Your task to perform on an android device: Search for seafood restaurants on Google Maps Image 0: 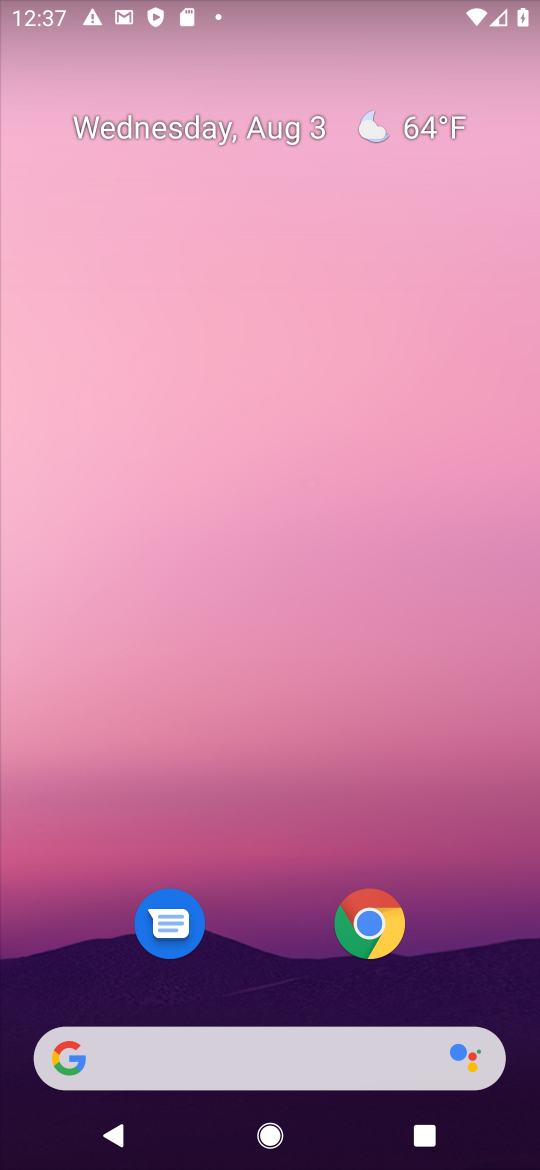
Step 0: drag from (242, 983) to (337, 647)
Your task to perform on an android device: Search for seafood restaurants on Google Maps Image 1: 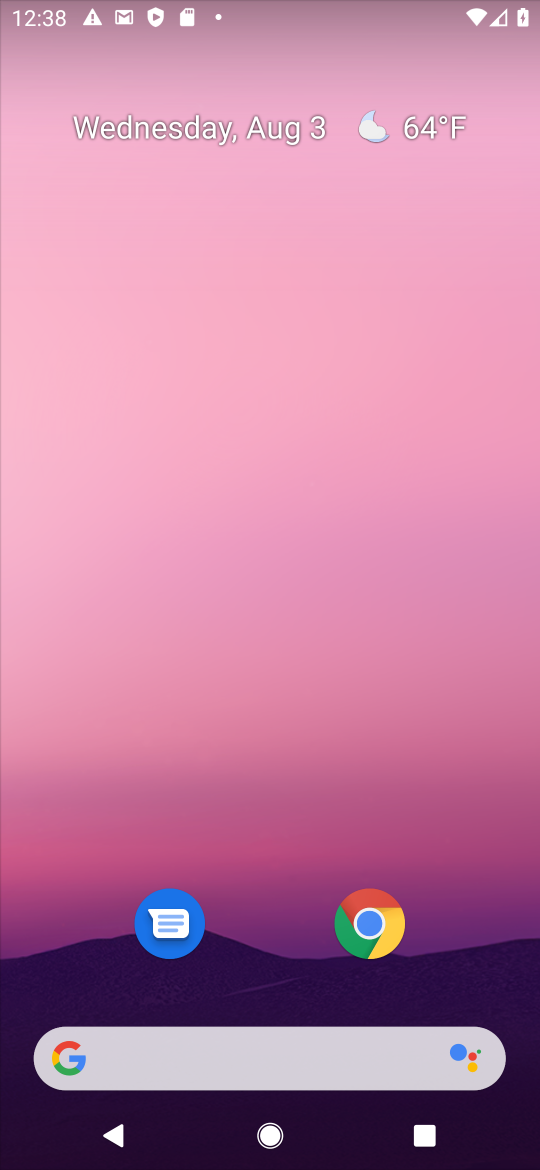
Step 1: drag from (253, 946) to (297, 85)
Your task to perform on an android device: Search for seafood restaurants on Google Maps Image 2: 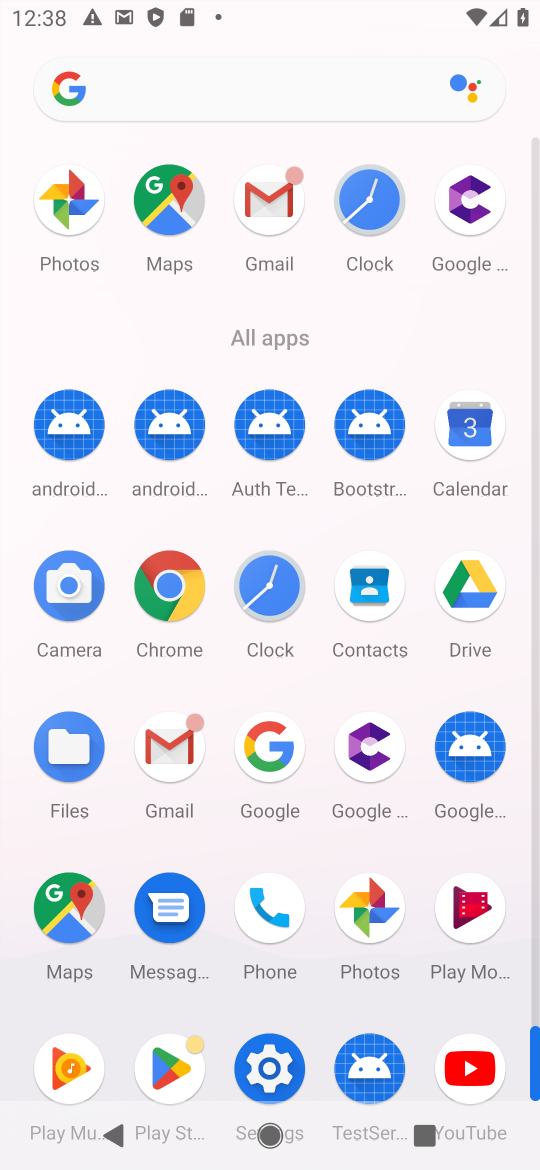
Step 2: click (59, 897)
Your task to perform on an android device: Search for seafood restaurants on Google Maps Image 3: 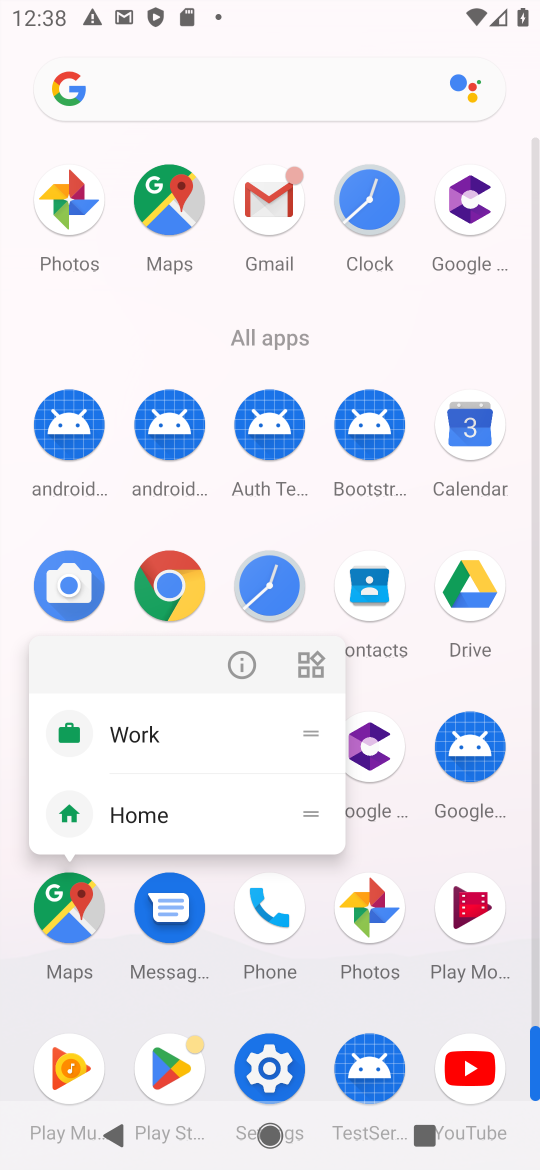
Step 3: click (248, 649)
Your task to perform on an android device: Search for seafood restaurants on Google Maps Image 4: 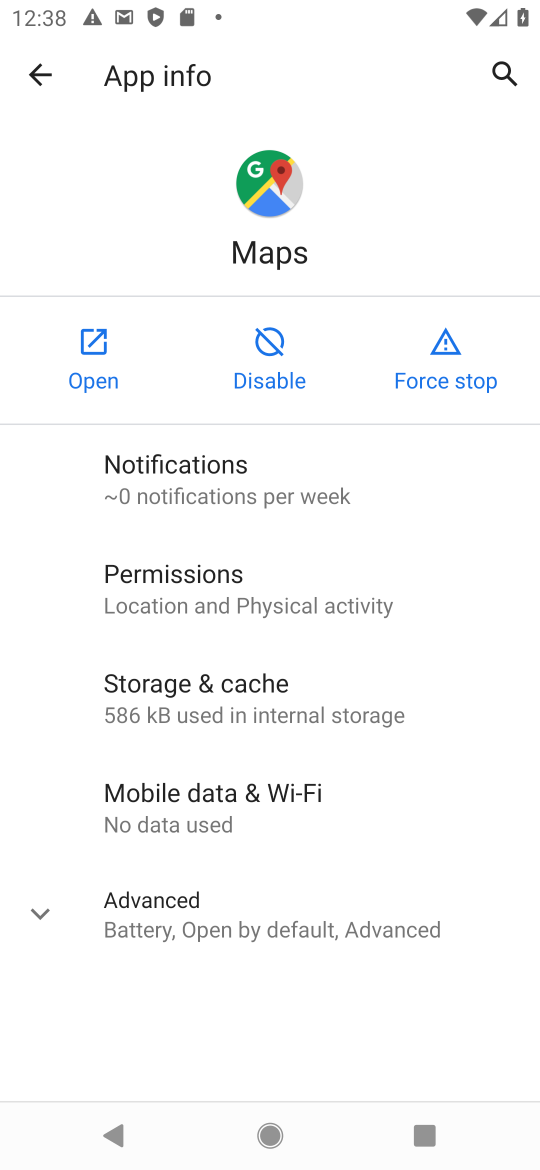
Step 4: click (96, 331)
Your task to perform on an android device: Search for seafood restaurants on Google Maps Image 5: 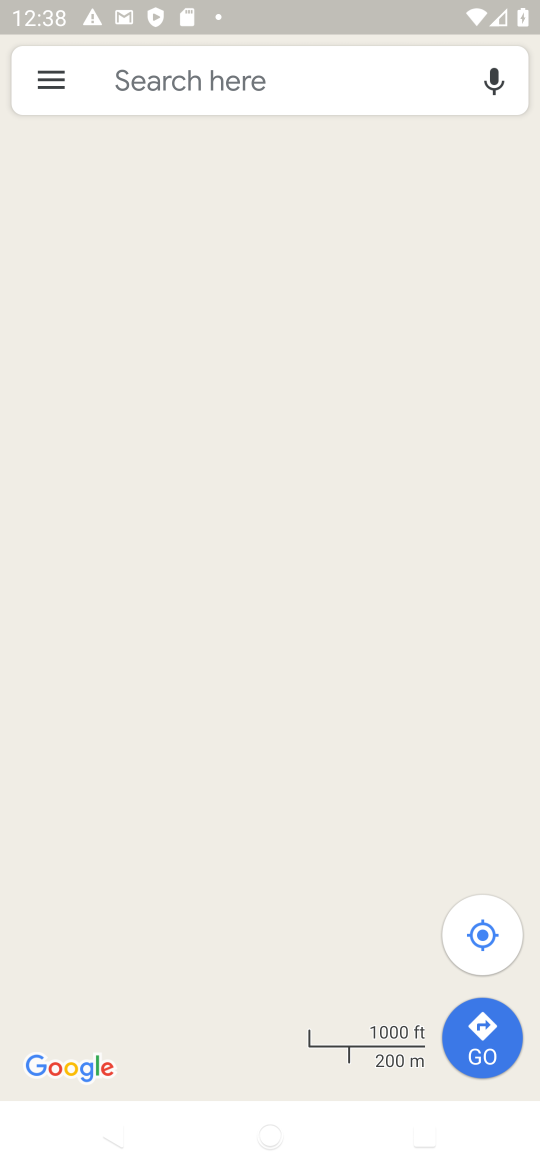
Step 5: drag from (319, 927) to (361, 100)
Your task to perform on an android device: Search for seafood restaurants on Google Maps Image 6: 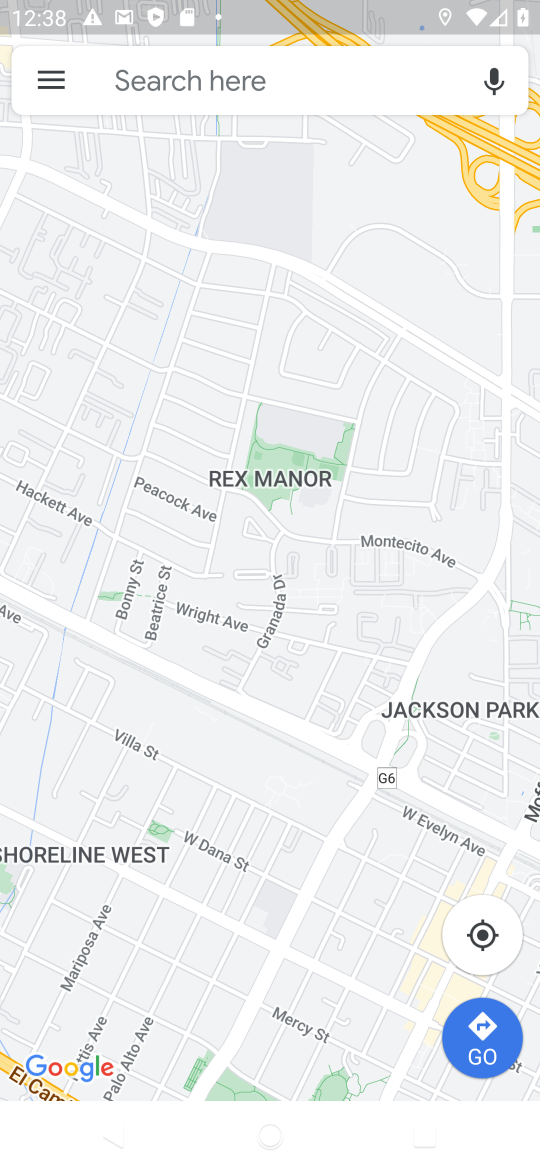
Step 6: drag from (195, 912) to (219, 422)
Your task to perform on an android device: Search for seafood restaurants on Google Maps Image 7: 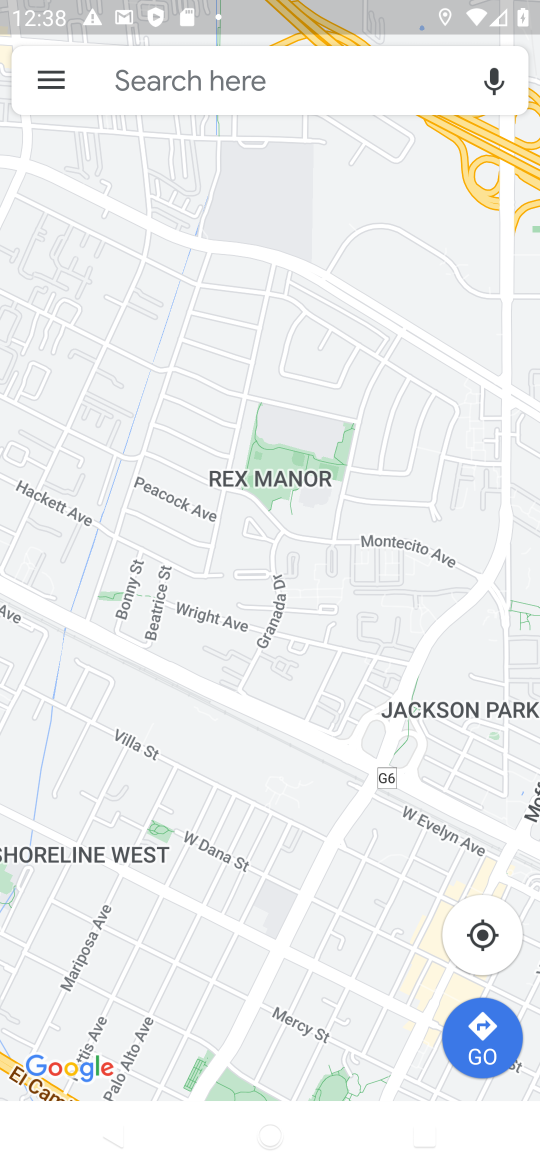
Step 7: drag from (211, 367) to (228, 821)
Your task to perform on an android device: Search for seafood restaurants on Google Maps Image 8: 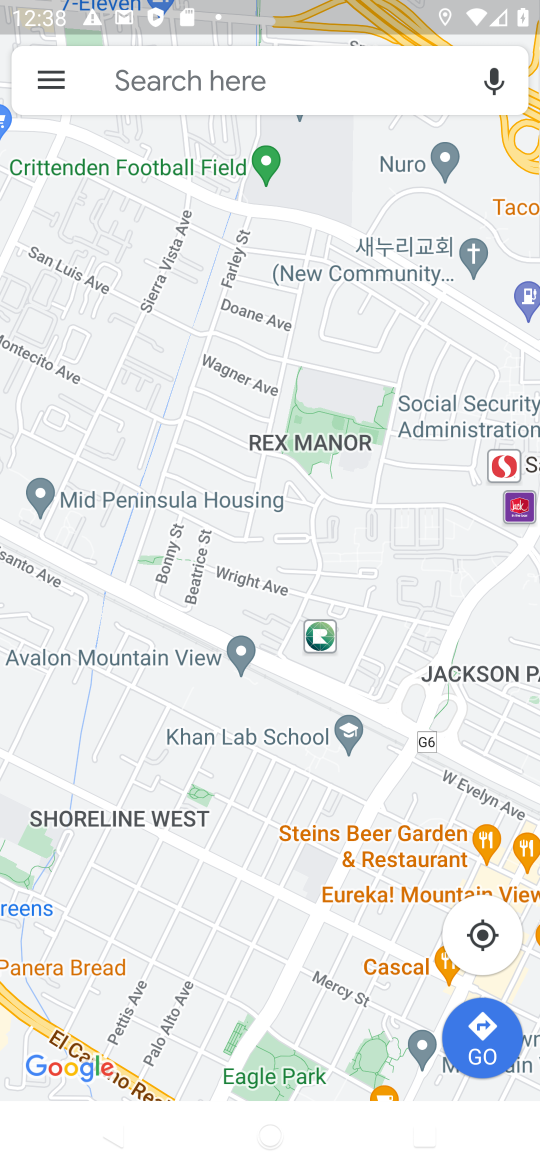
Step 8: drag from (295, 399) to (360, 1163)
Your task to perform on an android device: Search for seafood restaurants on Google Maps Image 9: 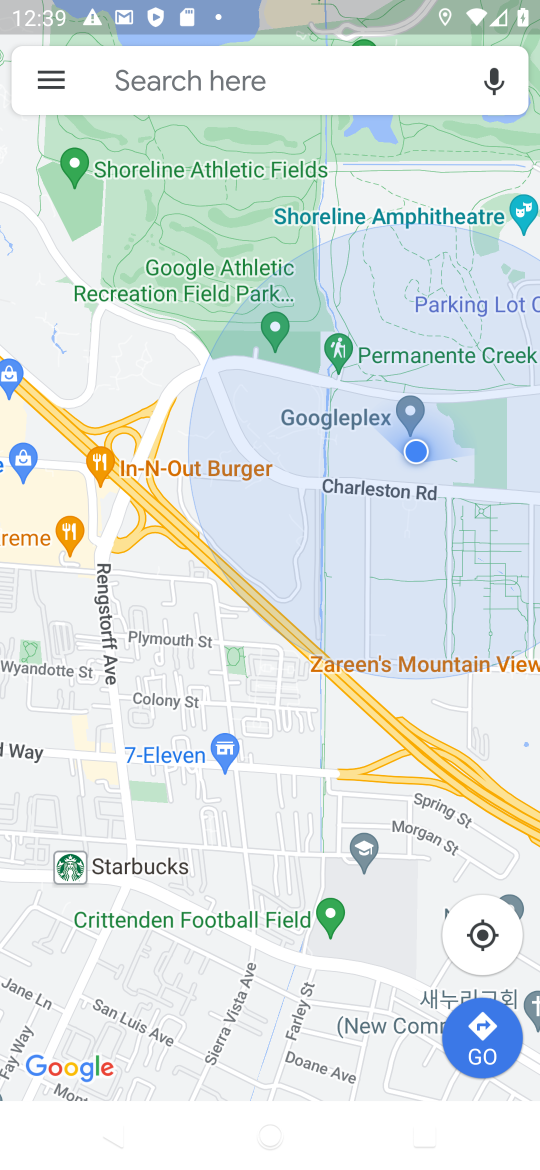
Step 9: drag from (269, 440) to (404, 1041)
Your task to perform on an android device: Search for seafood restaurants on Google Maps Image 10: 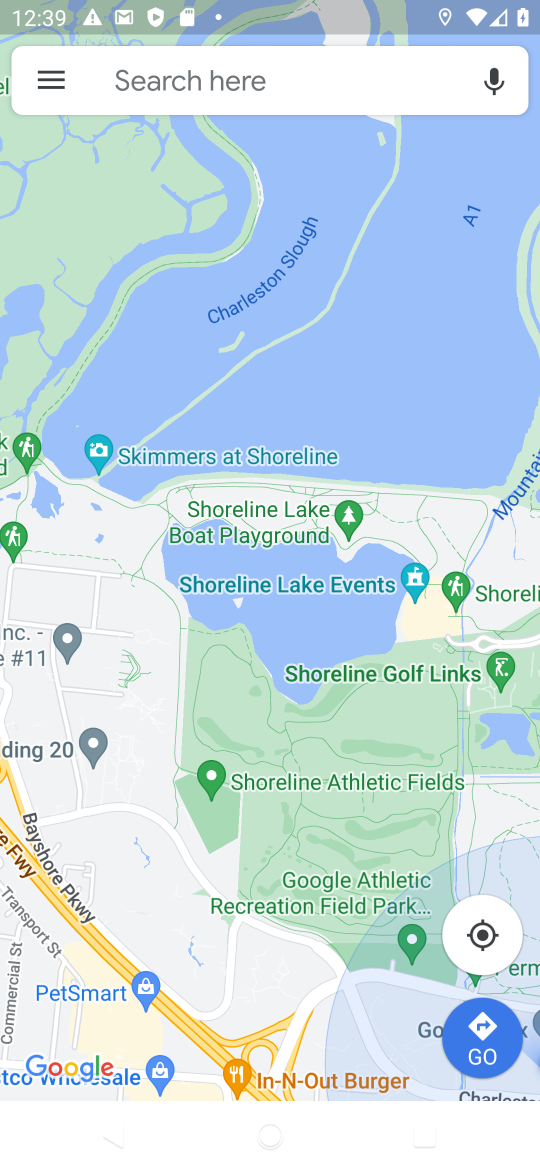
Step 10: click (136, 79)
Your task to perform on an android device: Search for seafood restaurants on Google Maps Image 11: 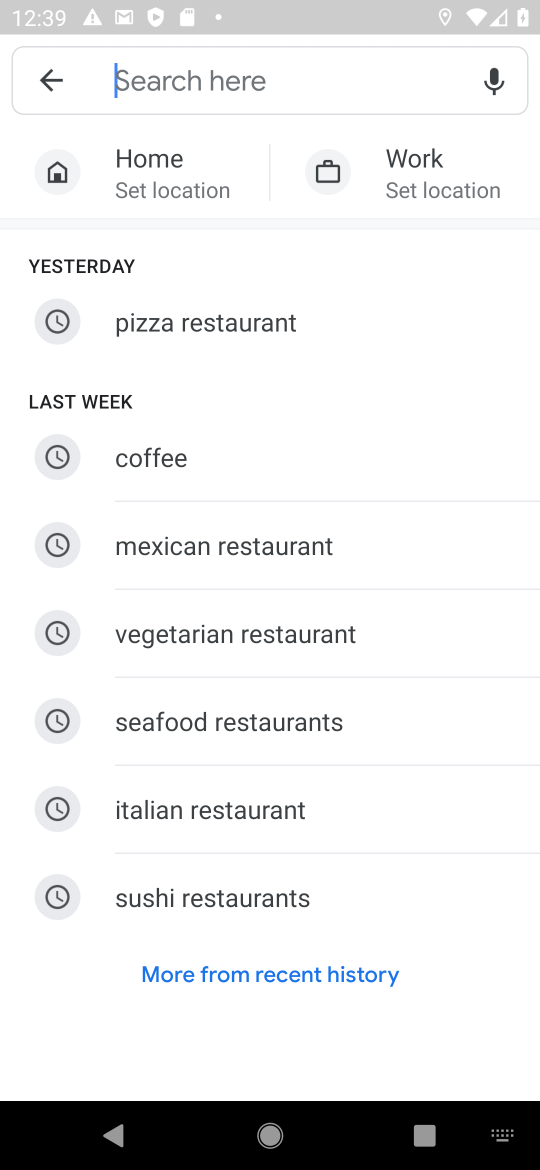
Step 11: drag from (319, 1169) to (445, 740)
Your task to perform on an android device: Search for seafood restaurants on Google Maps Image 12: 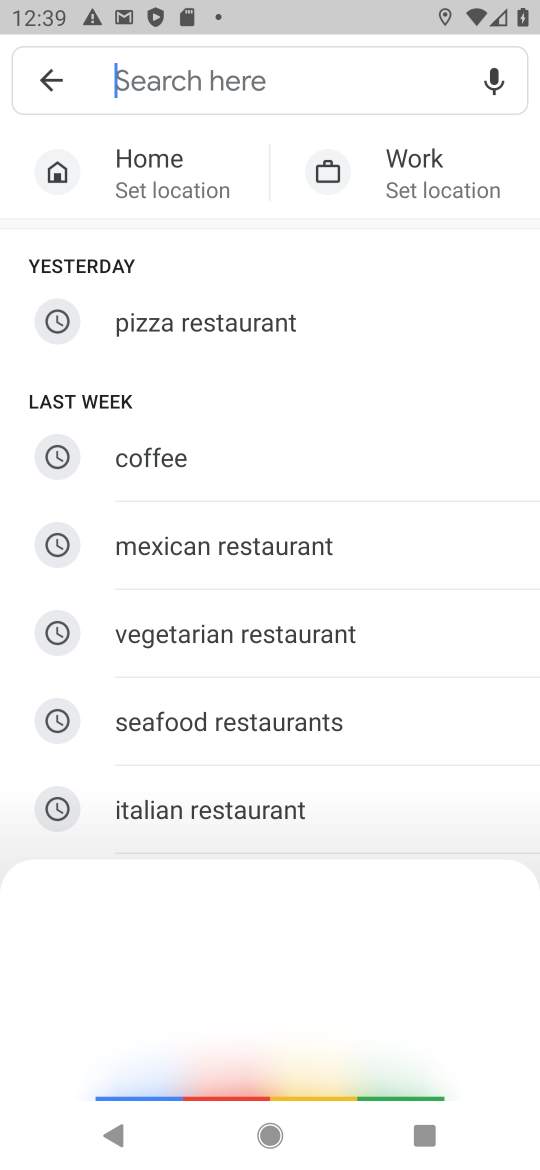
Step 12: click (174, 88)
Your task to perform on an android device: Search for seafood restaurants on Google Maps Image 13: 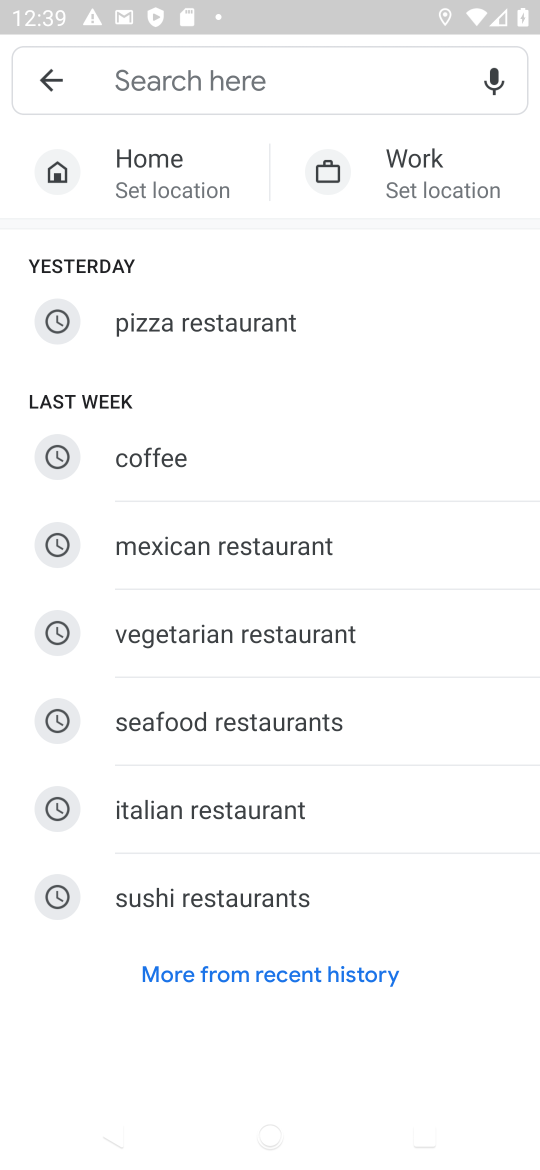
Step 13: type "seafood restaurants"
Your task to perform on an android device: Search for seafood restaurants on Google Maps Image 14: 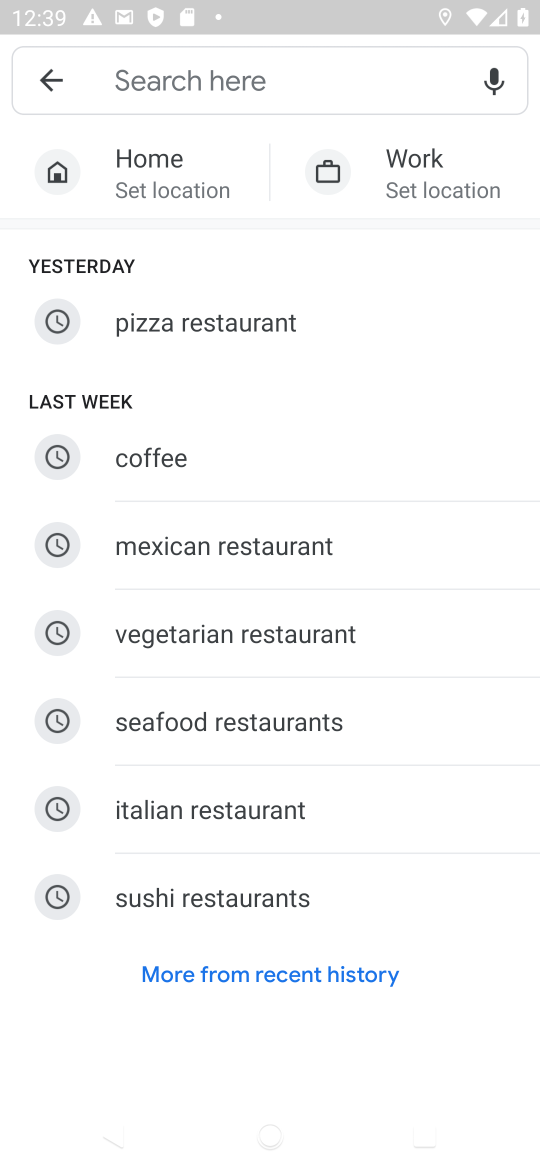
Step 14: click (231, 712)
Your task to perform on an android device: Search for seafood restaurants on Google Maps Image 15: 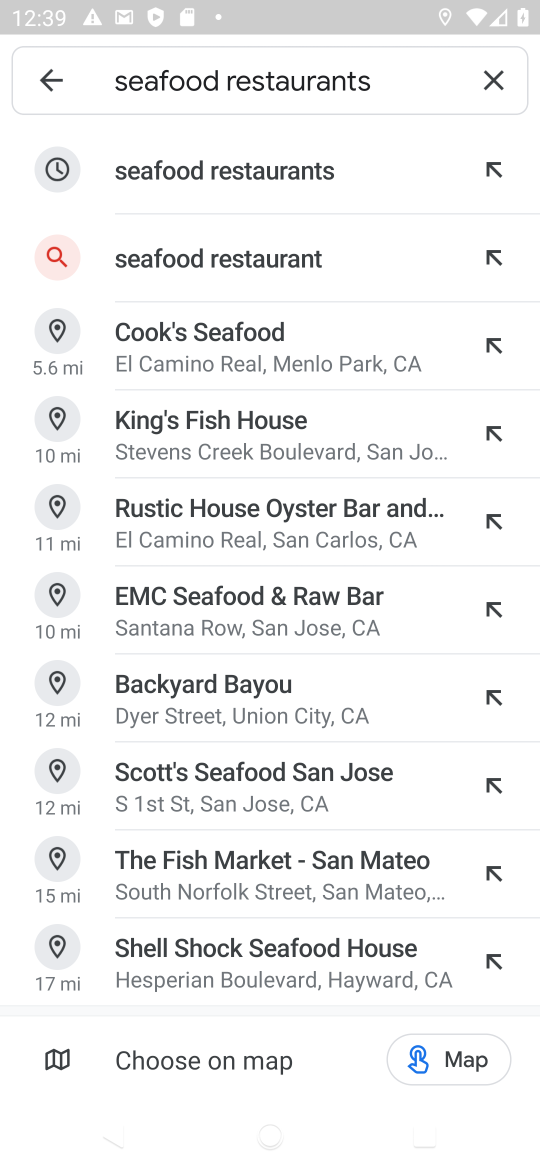
Step 15: click (208, 175)
Your task to perform on an android device: Search for seafood restaurants on Google Maps Image 16: 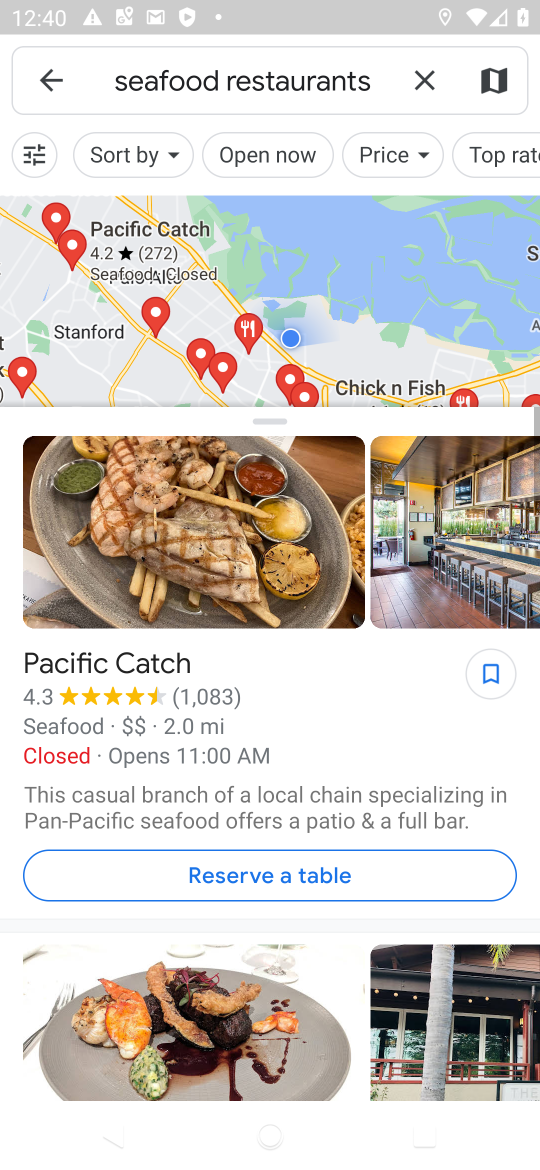
Step 16: click (332, 78)
Your task to perform on an android device: Search for seafood restaurants on Google Maps Image 17: 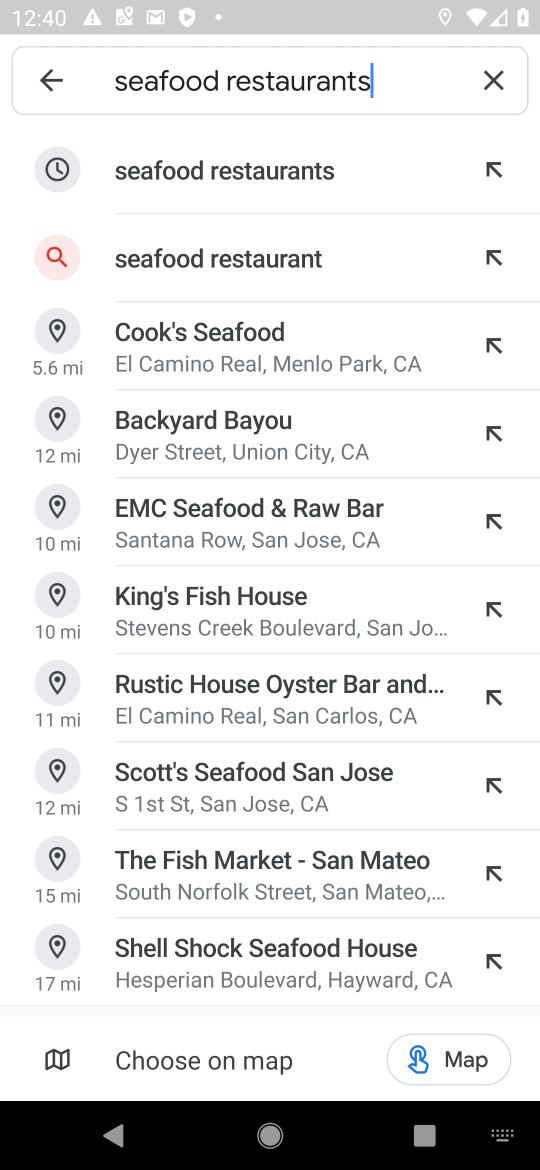
Step 17: click (178, 174)
Your task to perform on an android device: Search for seafood restaurants on Google Maps Image 18: 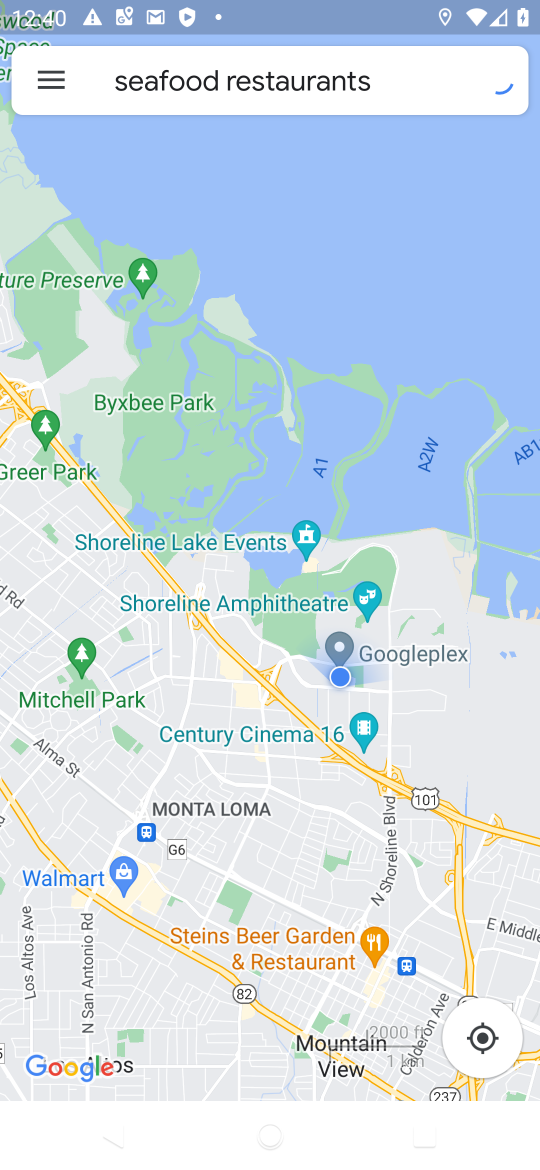
Step 18: task complete